Your task to perform on an android device: What is the recent news? Image 0: 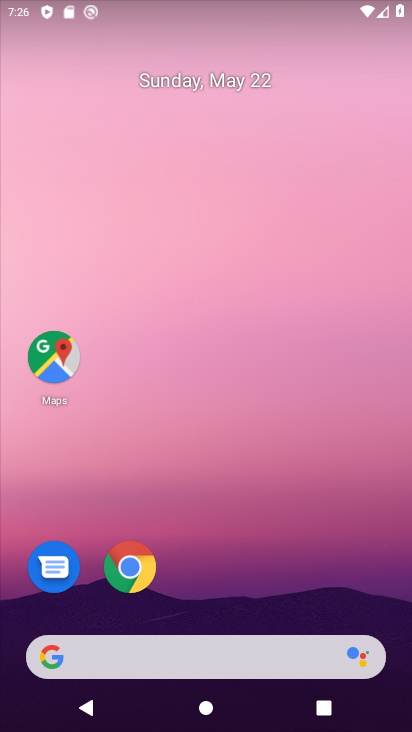
Step 0: click (181, 656)
Your task to perform on an android device: What is the recent news? Image 1: 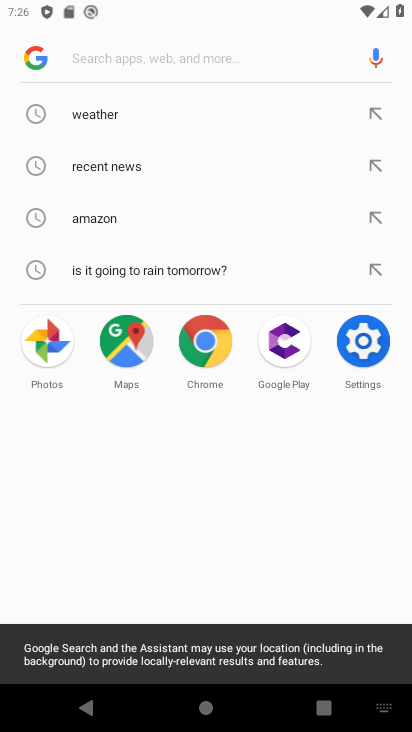
Step 1: click (151, 175)
Your task to perform on an android device: What is the recent news? Image 2: 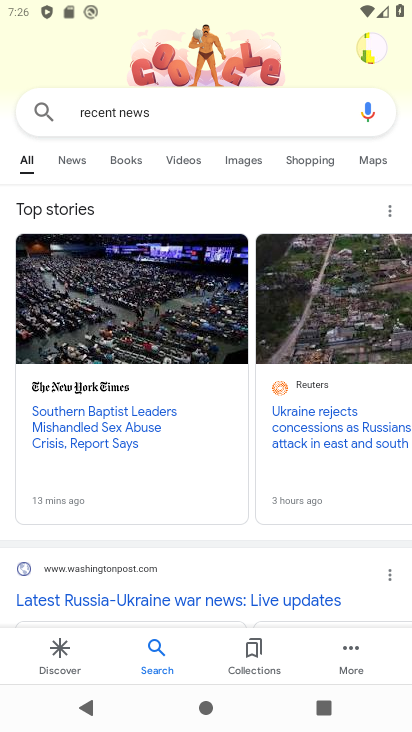
Step 2: task complete